Your task to perform on an android device: Go to Yahoo.com Image 0: 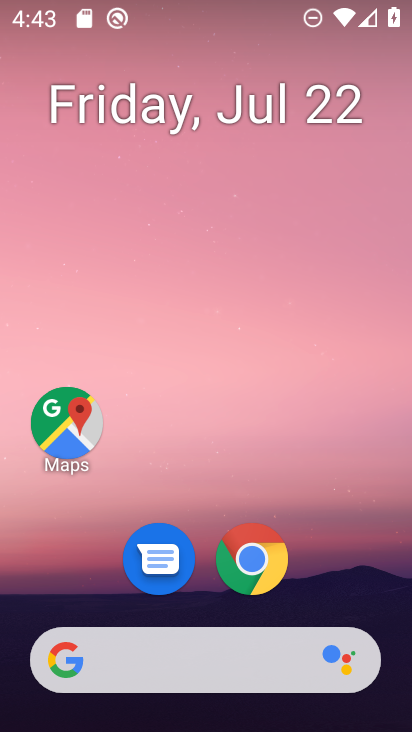
Step 0: click (261, 568)
Your task to perform on an android device: Go to Yahoo.com Image 1: 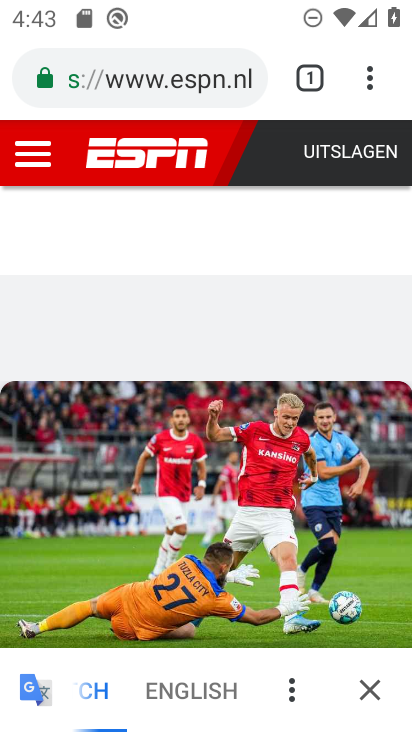
Step 1: click (312, 71)
Your task to perform on an android device: Go to Yahoo.com Image 2: 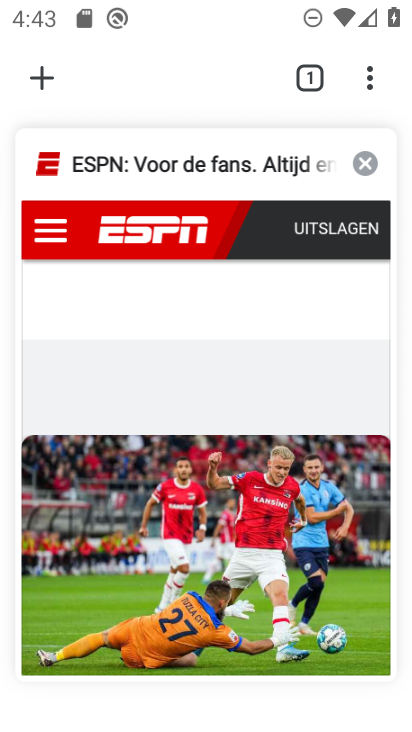
Step 2: click (46, 70)
Your task to perform on an android device: Go to Yahoo.com Image 3: 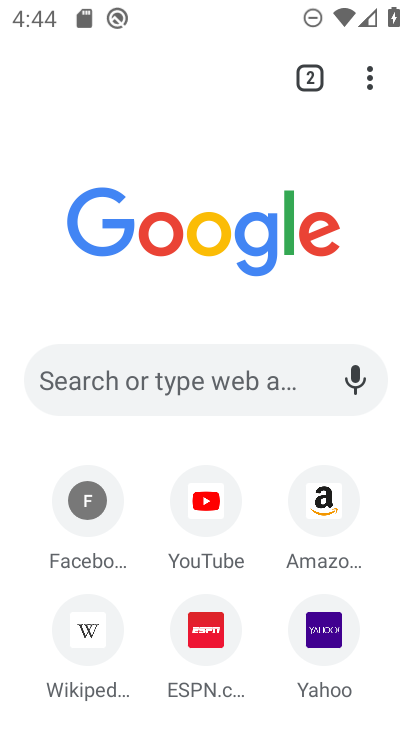
Step 3: click (303, 642)
Your task to perform on an android device: Go to Yahoo.com Image 4: 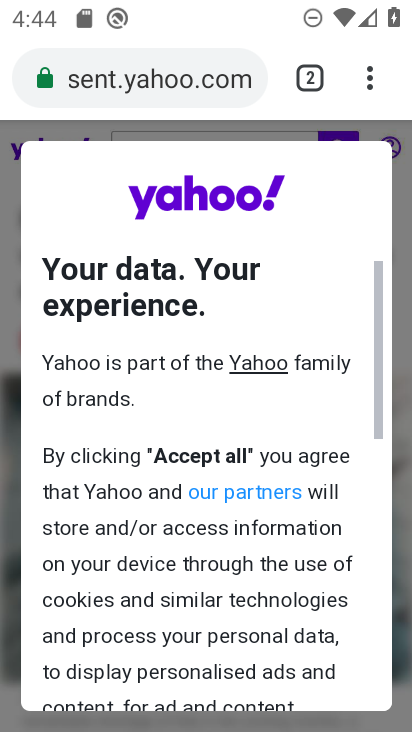
Step 4: task complete